Your task to perform on an android device: search for starred emails in the gmail app Image 0: 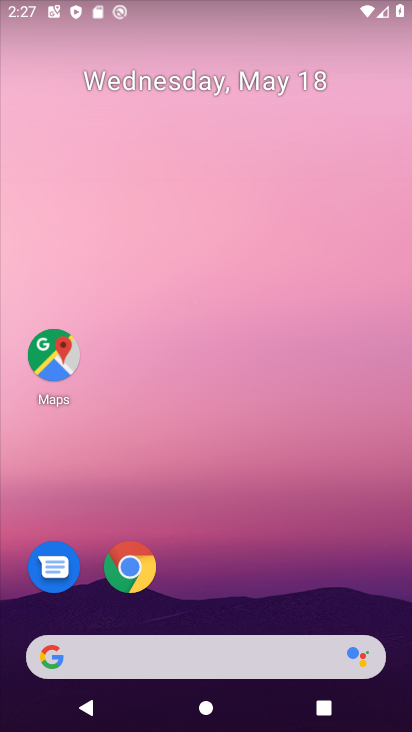
Step 0: drag from (282, 585) to (250, 133)
Your task to perform on an android device: search for starred emails in the gmail app Image 1: 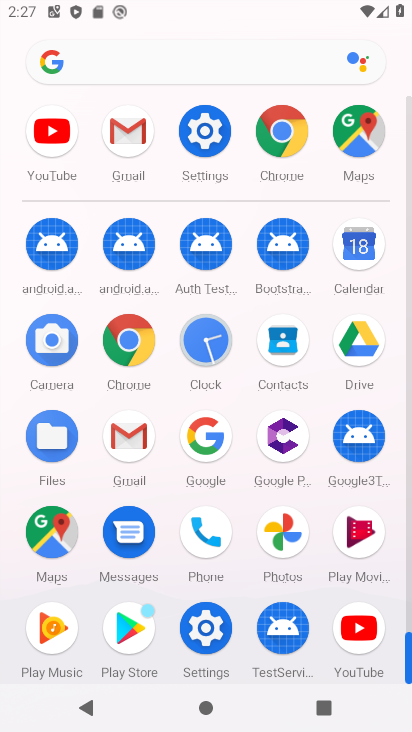
Step 1: click (118, 128)
Your task to perform on an android device: search for starred emails in the gmail app Image 2: 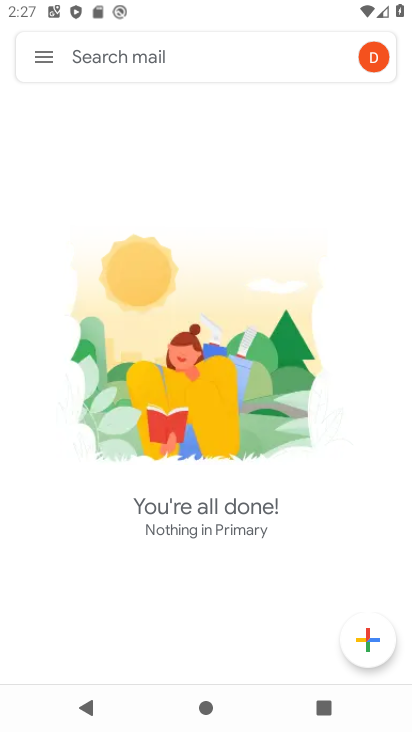
Step 2: click (46, 54)
Your task to perform on an android device: search for starred emails in the gmail app Image 3: 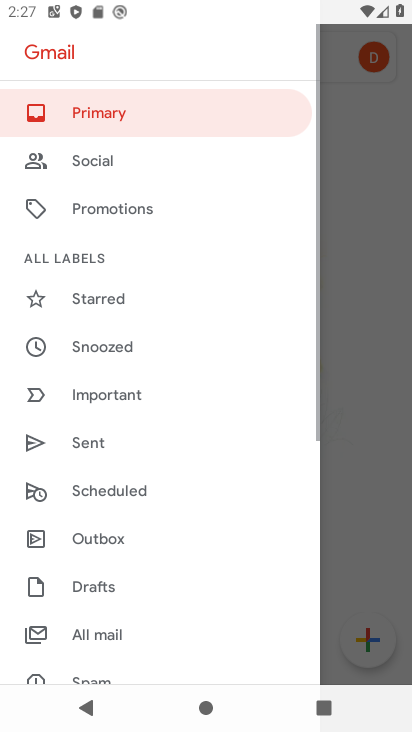
Step 3: drag from (170, 588) to (245, 287)
Your task to perform on an android device: search for starred emails in the gmail app Image 4: 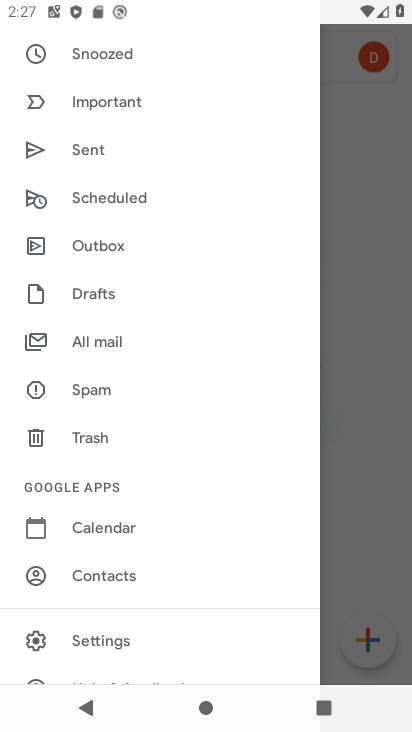
Step 4: drag from (156, 224) to (149, 492)
Your task to perform on an android device: search for starred emails in the gmail app Image 5: 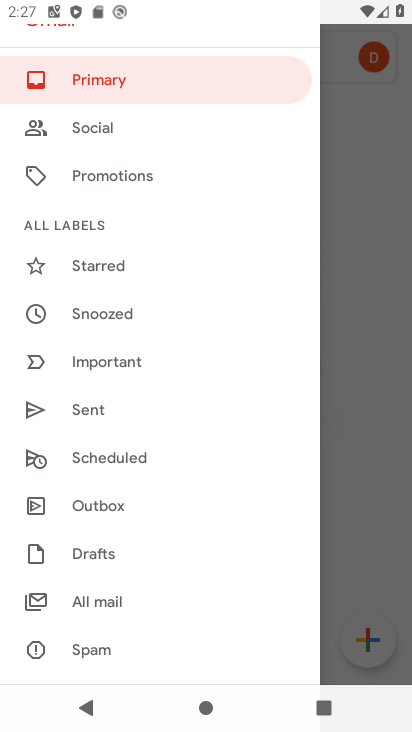
Step 5: click (113, 266)
Your task to perform on an android device: search for starred emails in the gmail app Image 6: 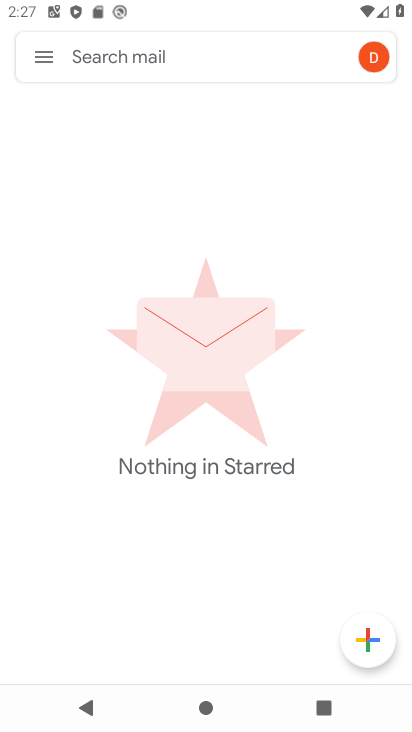
Step 6: task complete